Your task to perform on an android device: move an email to a new category in the gmail app Image 0: 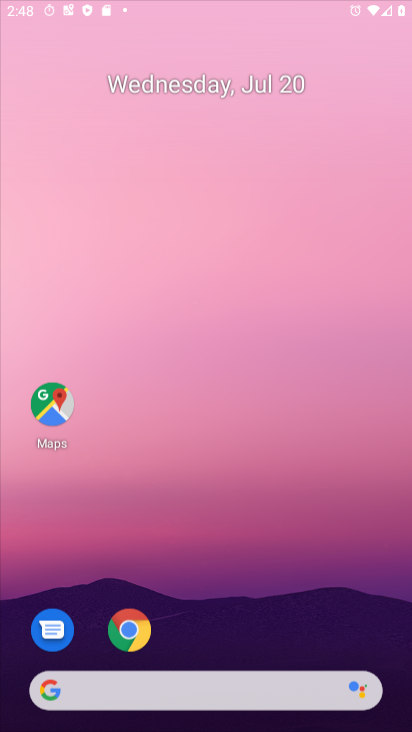
Step 0: drag from (216, 476) to (281, 68)
Your task to perform on an android device: move an email to a new category in the gmail app Image 1: 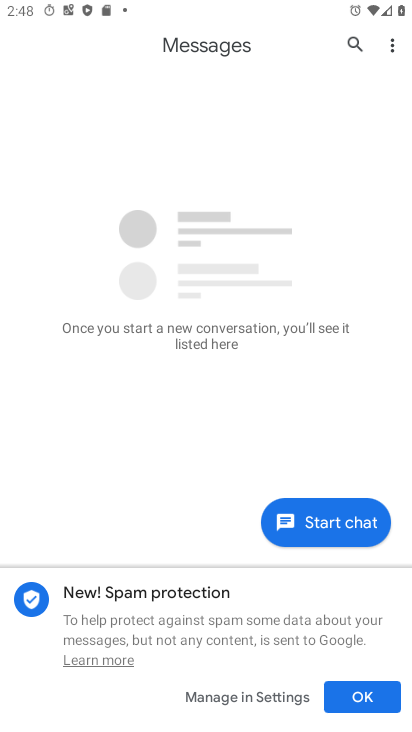
Step 1: press home button
Your task to perform on an android device: move an email to a new category in the gmail app Image 2: 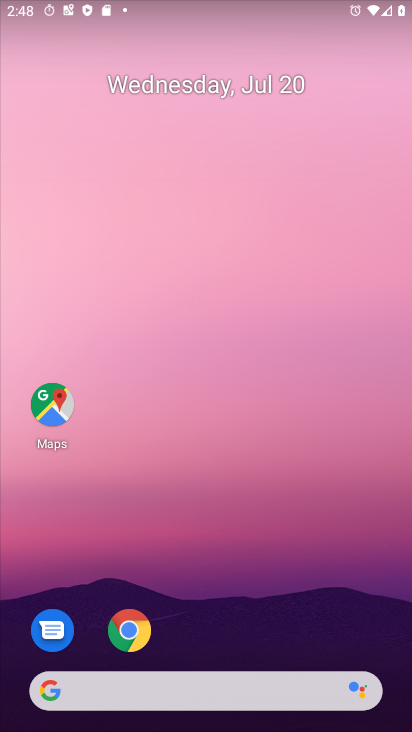
Step 2: drag from (170, 691) to (326, 85)
Your task to perform on an android device: move an email to a new category in the gmail app Image 3: 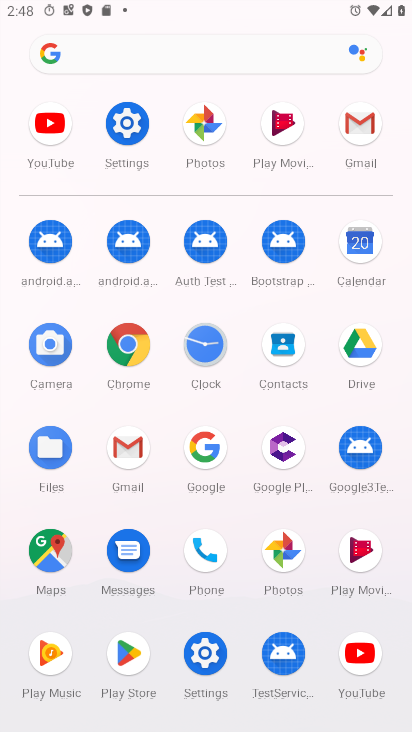
Step 3: click (355, 130)
Your task to perform on an android device: move an email to a new category in the gmail app Image 4: 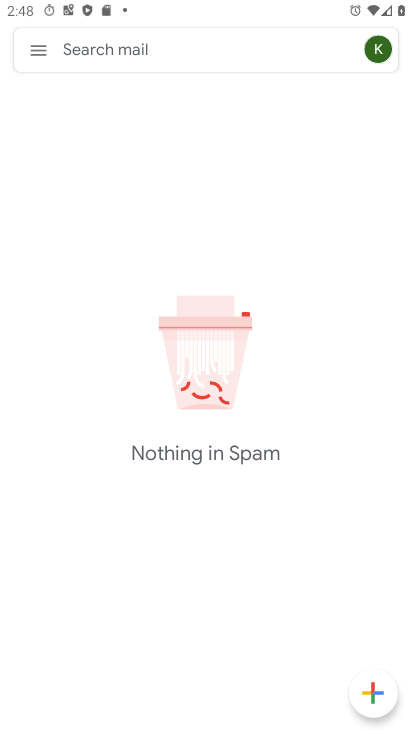
Step 4: click (36, 50)
Your task to perform on an android device: move an email to a new category in the gmail app Image 5: 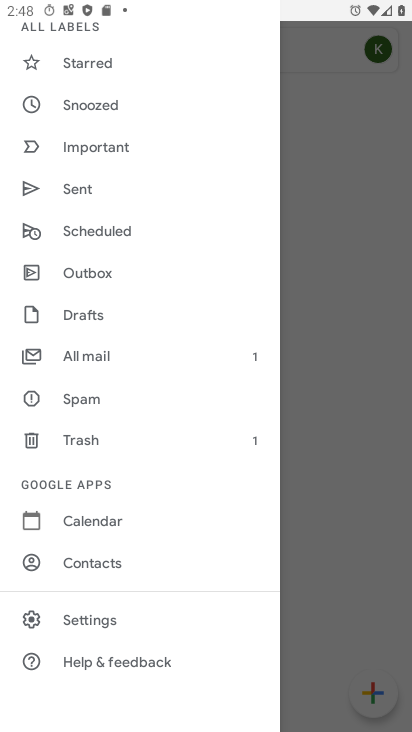
Step 5: click (66, 362)
Your task to perform on an android device: move an email to a new category in the gmail app Image 6: 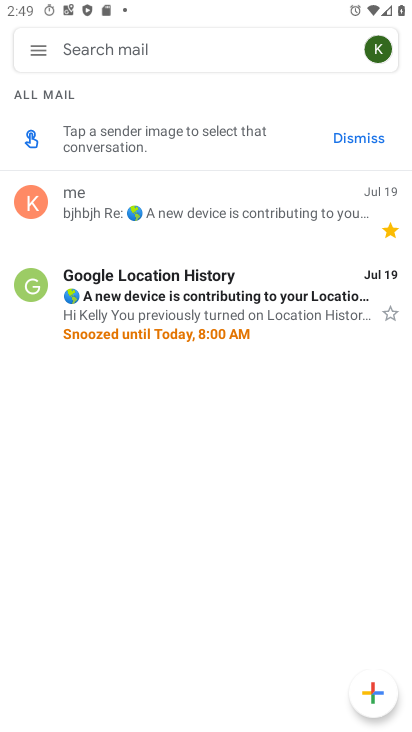
Step 6: click (194, 216)
Your task to perform on an android device: move an email to a new category in the gmail app Image 7: 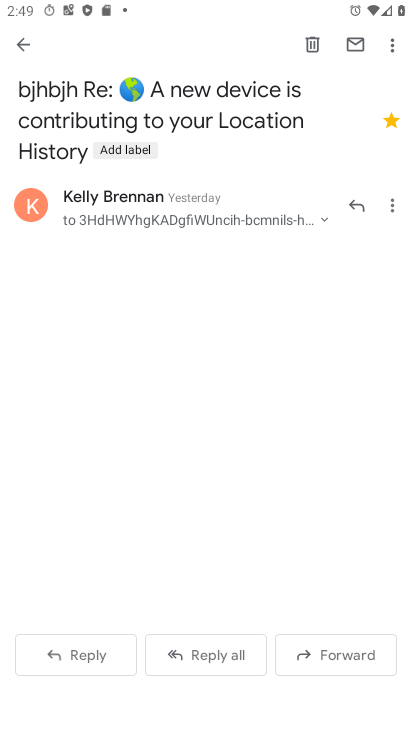
Step 7: click (21, 43)
Your task to perform on an android device: move an email to a new category in the gmail app Image 8: 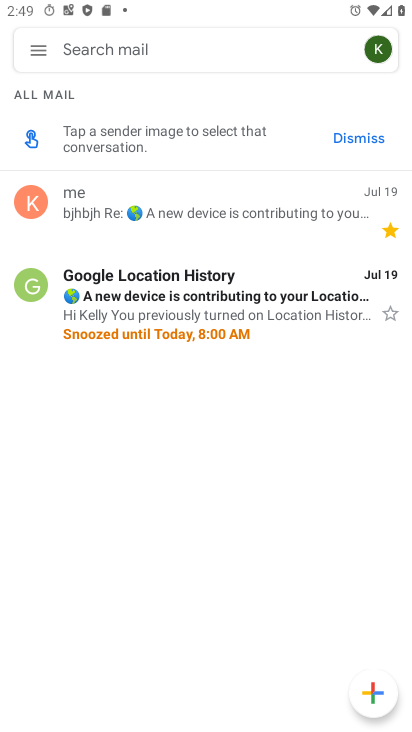
Step 8: click (34, 199)
Your task to perform on an android device: move an email to a new category in the gmail app Image 9: 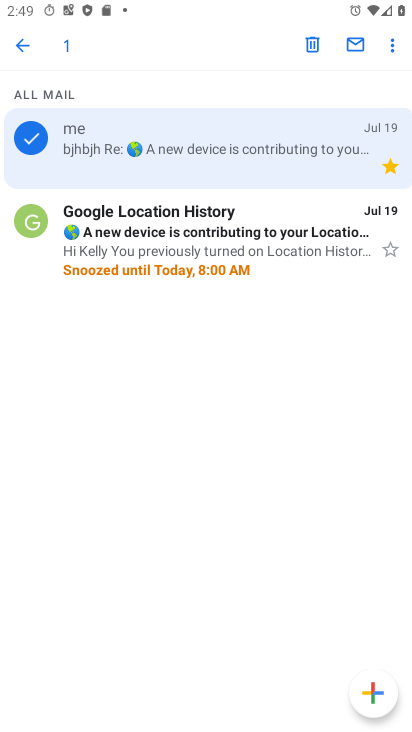
Step 9: click (393, 44)
Your task to perform on an android device: move an email to a new category in the gmail app Image 10: 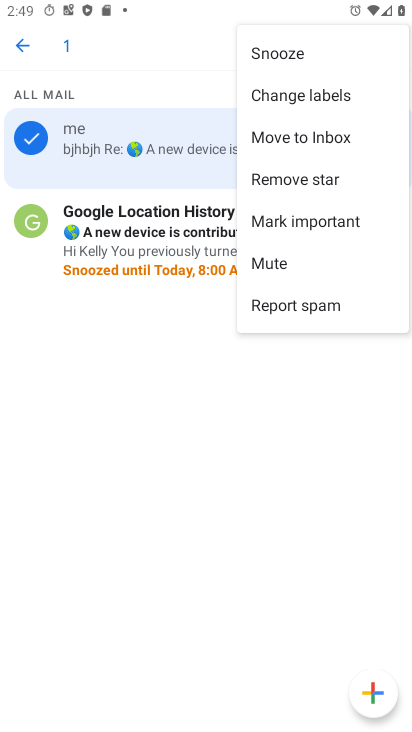
Step 10: click (333, 133)
Your task to perform on an android device: move an email to a new category in the gmail app Image 11: 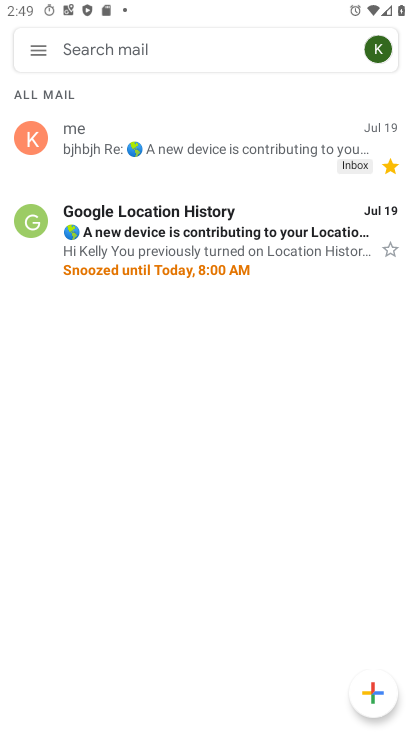
Step 11: task complete